Your task to perform on an android device: turn off smart reply in the gmail app Image 0: 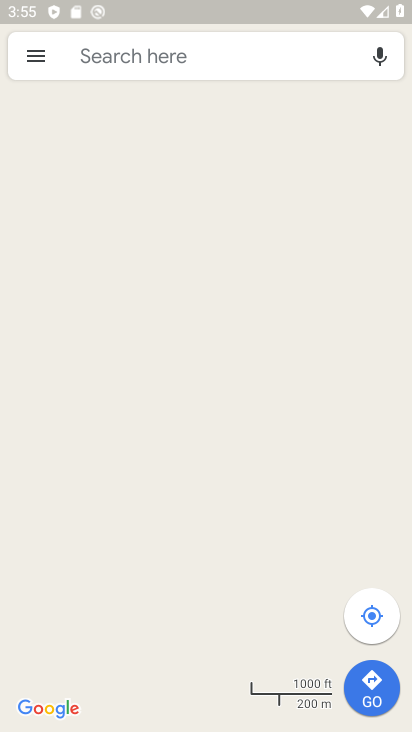
Step 0: press home button
Your task to perform on an android device: turn off smart reply in the gmail app Image 1: 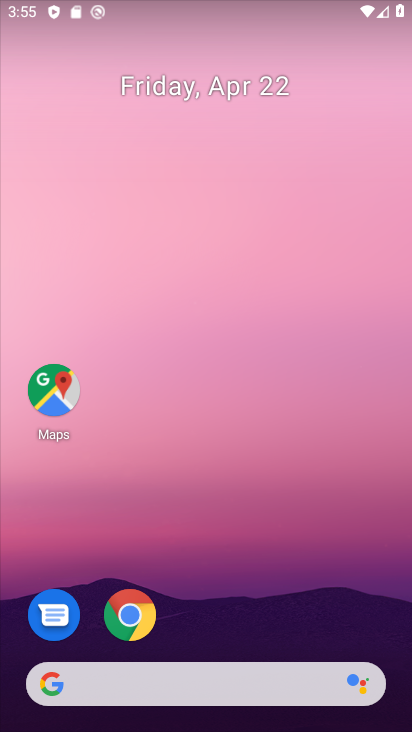
Step 1: drag from (254, 627) to (265, 242)
Your task to perform on an android device: turn off smart reply in the gmail app Image 2: 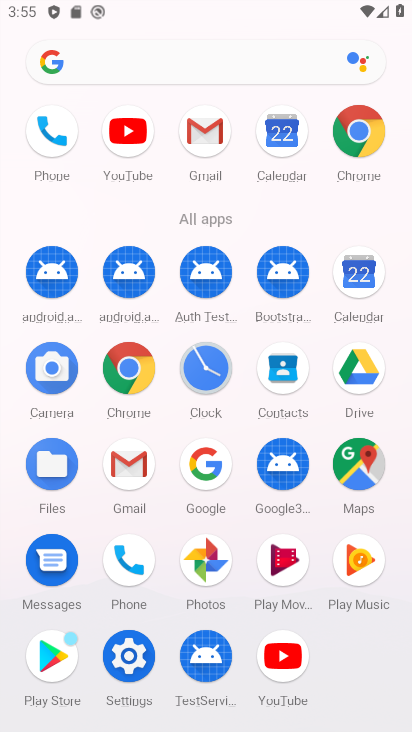
Step 2: click (209, 139)
Your task to perform on an android device: turn off smart reply in the gmail app Image 3: 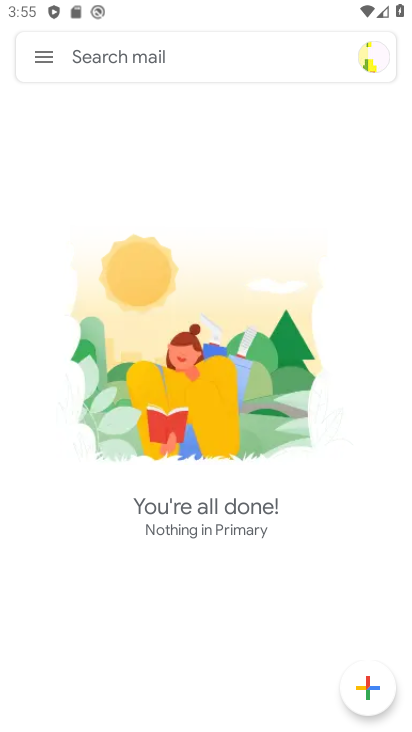
Step 3: click (50, 61)
Your task to perform on an android device: turn off smart reply in the gmail app Image 4: 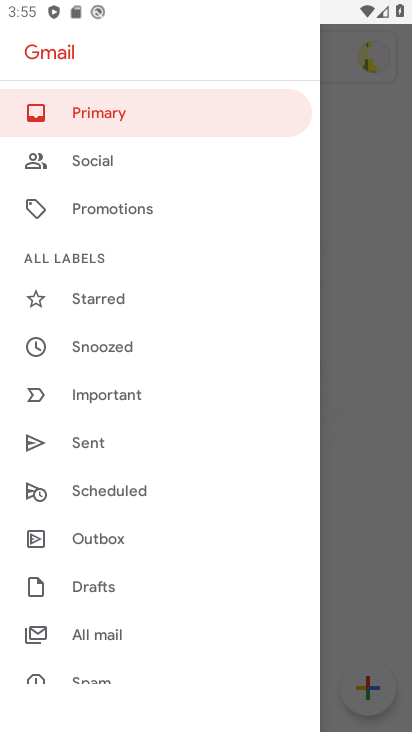
Step 4: drag from (149, 607) to (132, 243)
Your task to perform on an android device: turn off smart reply in the gmail app Image 5: 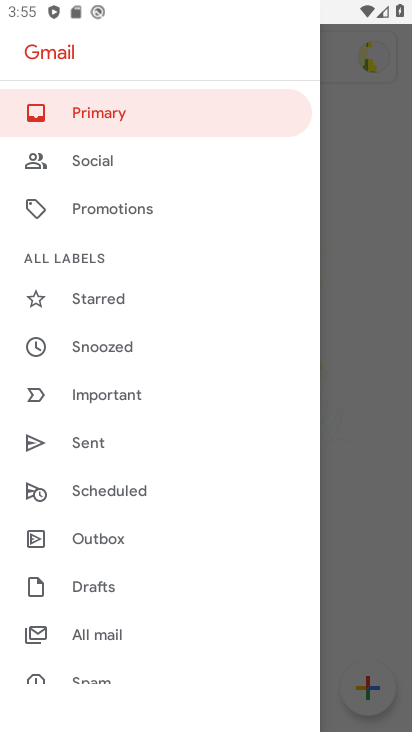
Step 5: drag from (154, 642) to (130, 280)
Your task to perform on an android device: turn off smart reply in the gmail app Image 6: 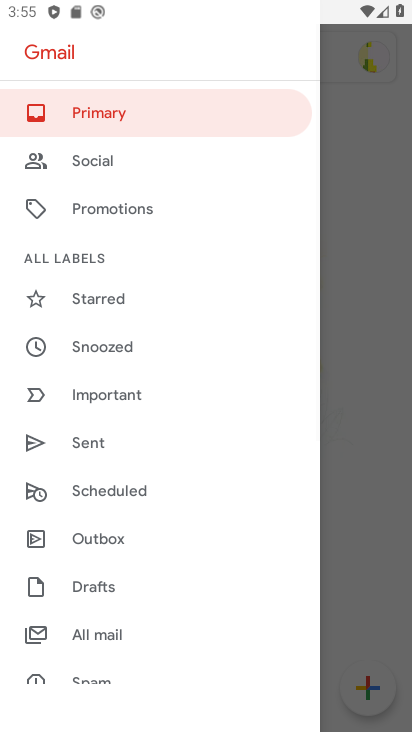
Step 6: drag from (81, 653) to (121, 277)
Your task to perform on an android device: turn off smart reply in the gmail app Image 7: 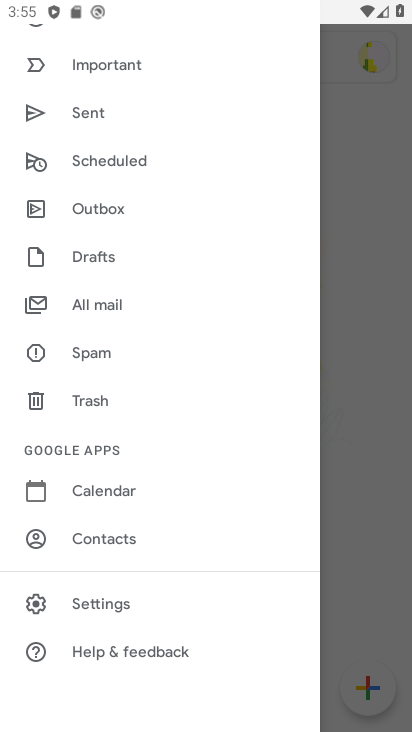
Step 7: click (115, 606)
Your task to perform on an android device: turn off smart reply in the gmail app Image 8: 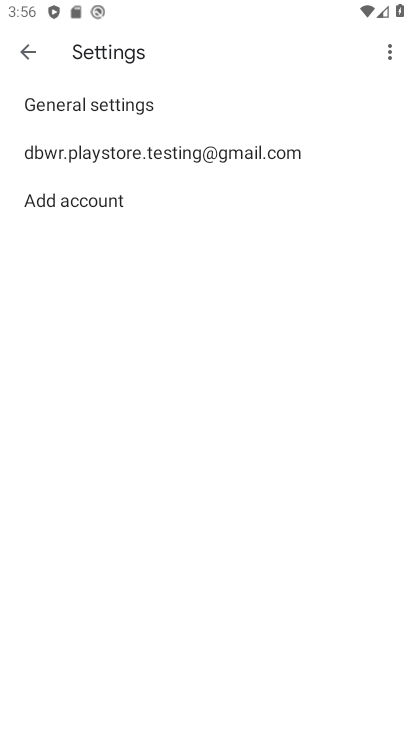
Step 8: click (135, 153)
Your task to perform on an android device: turn off smart reply in the gmail app Image 9: 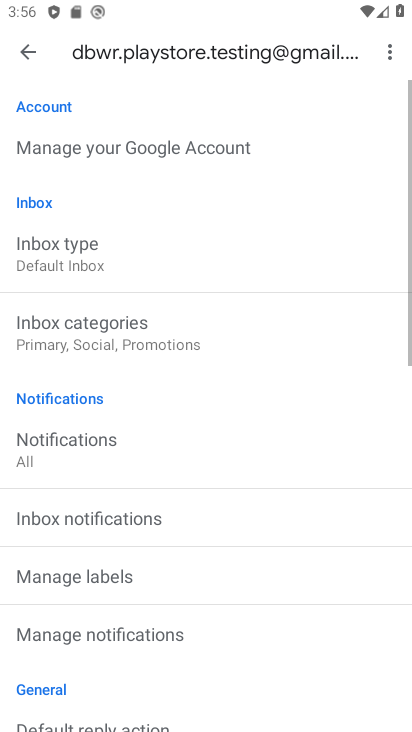
Step 9: drag from (312, 638) to (293, 205)
Your task to perform on an android device: turn off smart reply in the gmail app Image 10: 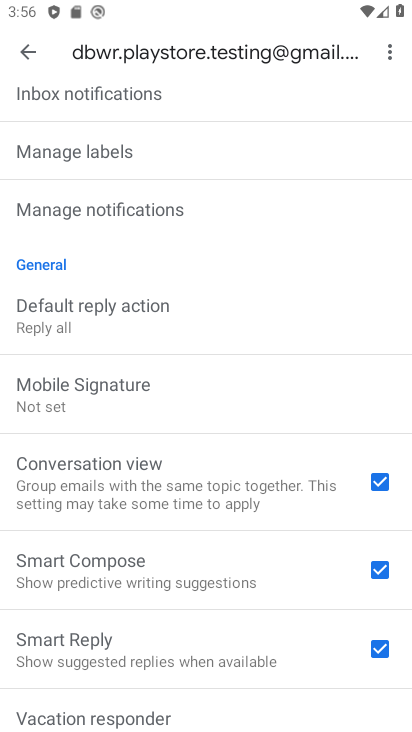
Step 10: click (375, 656)
Your task to perform on an android device: turn off smart reply in the gmail app Image 11: 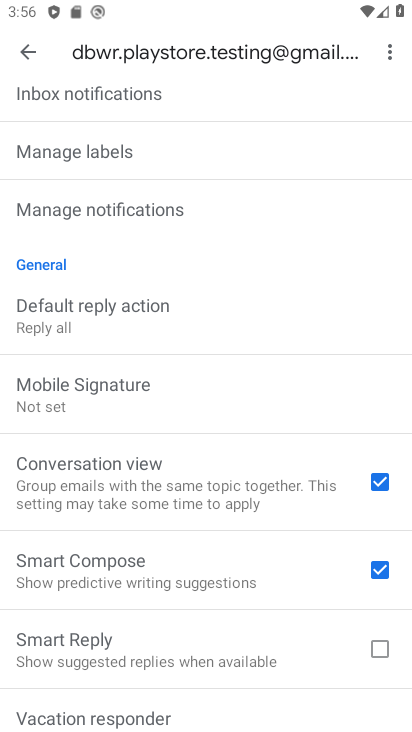
Step 11: task complete